Your task to perform on an android device: move a message to another label in the gmail app Image 0: 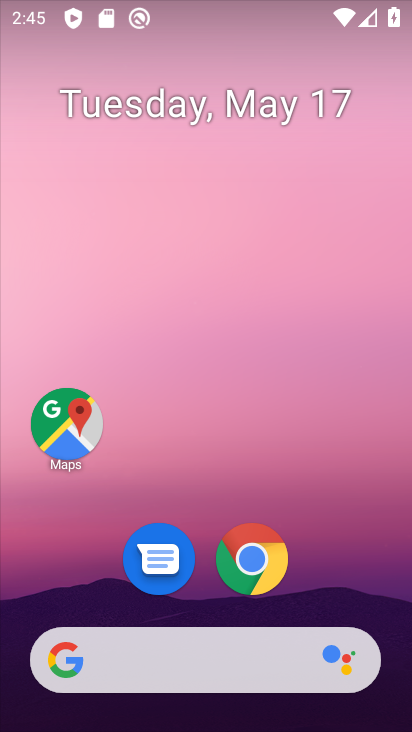
Step 0: drag from (381, 616) to (252, 144)
Your task to perform on an android device: move a message to another label in the gmail app Image 1: 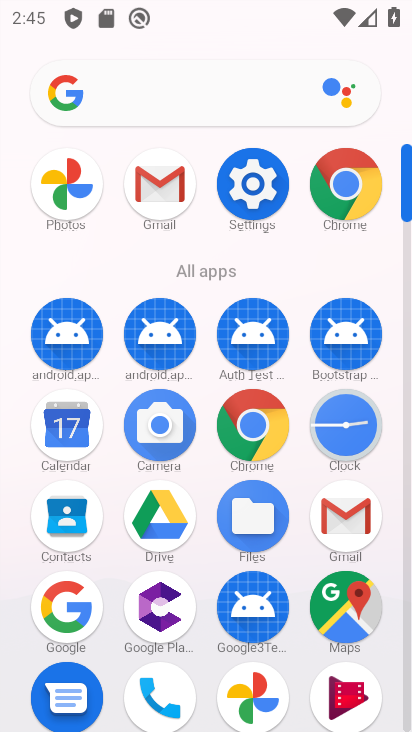
Step 1: click (183, 188)
Your task to perform on an android device: move a message to another label in the gmail app Image 2: 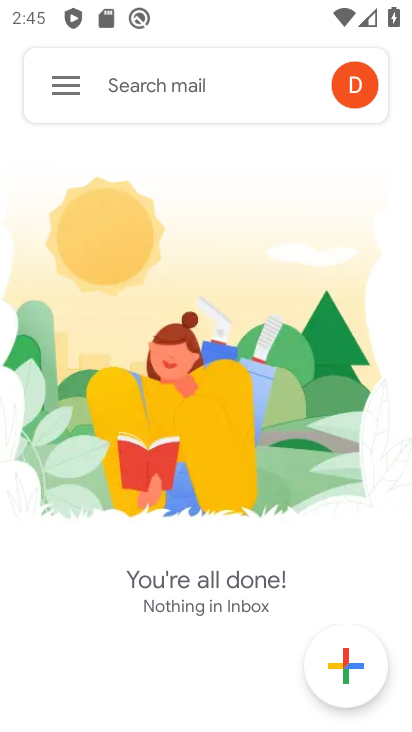
Step 2: click (183, 188)
Your task to perform on an android device: move a message to another label in the gmail app Image 3: 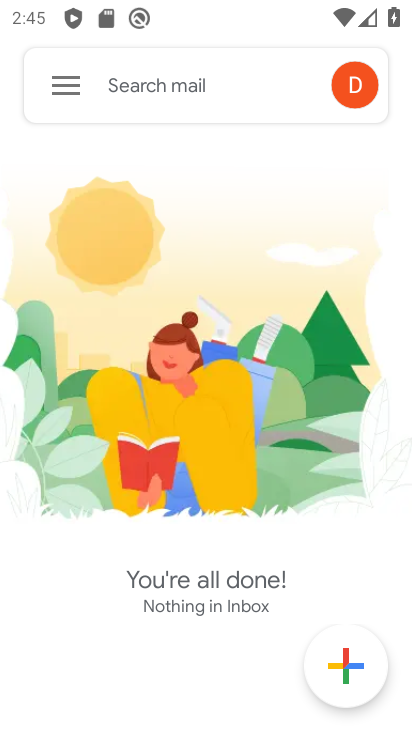
Step 3: click (73, 96)
Your task to perform on an android device: move a message to another label in the gmail app Image 4: 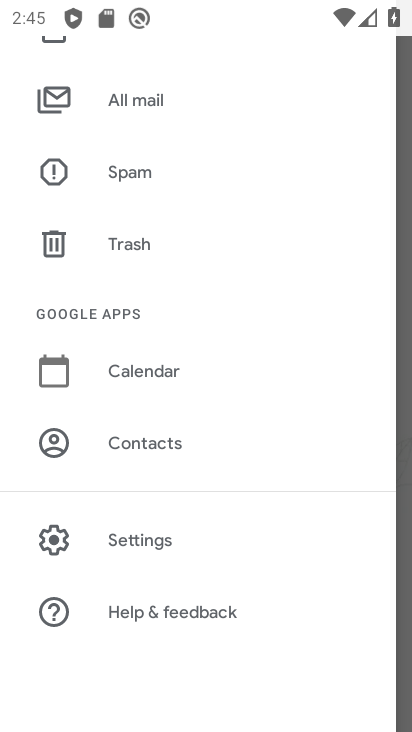
Step 4: click (139, 107)
Your task to perform on an android device: move a message to another label in the gmail app Image 5: 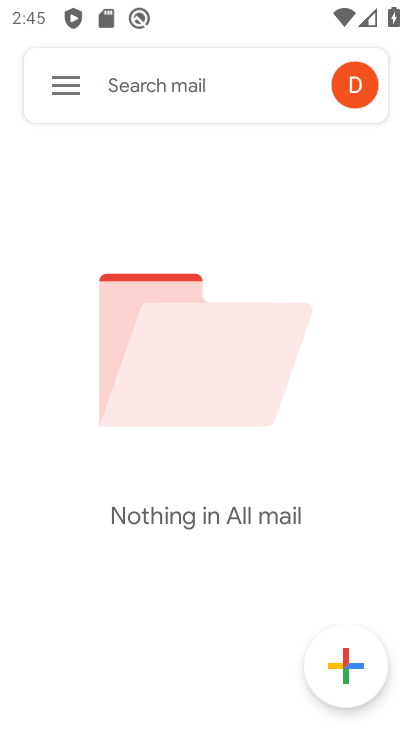
Step 5: task complete